Your task to perform on an android device: turn on bluetooth scan Image 0: 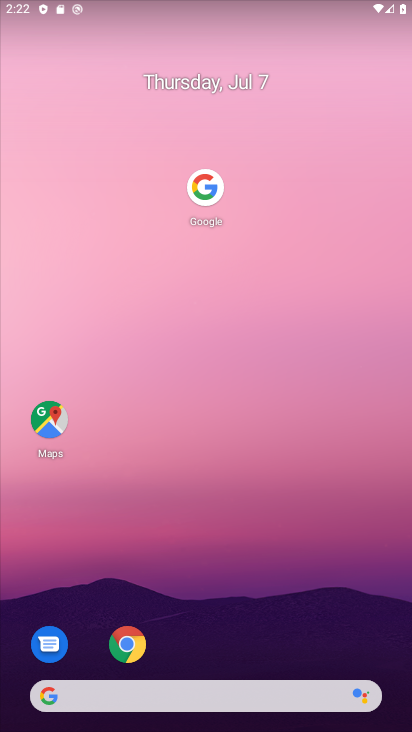
Step 0: drag from (146, 701) to (249, 152)
Your task to perform on an android device: turn on bluetooth scan Image 1: 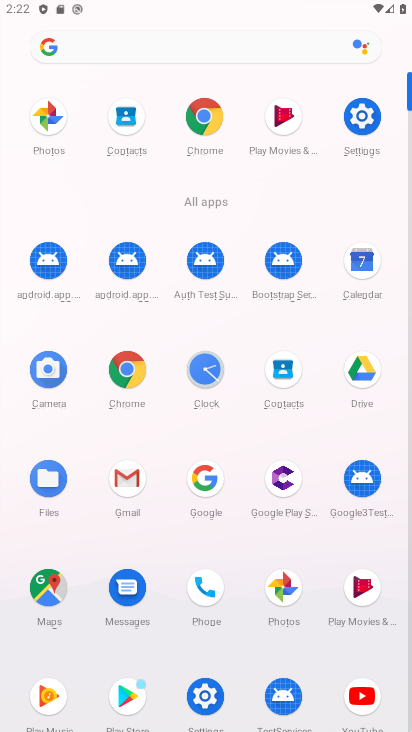
Step 1: click (356, 113)
Your task to perform on an android device: turn on bluetooth scan Image 2: 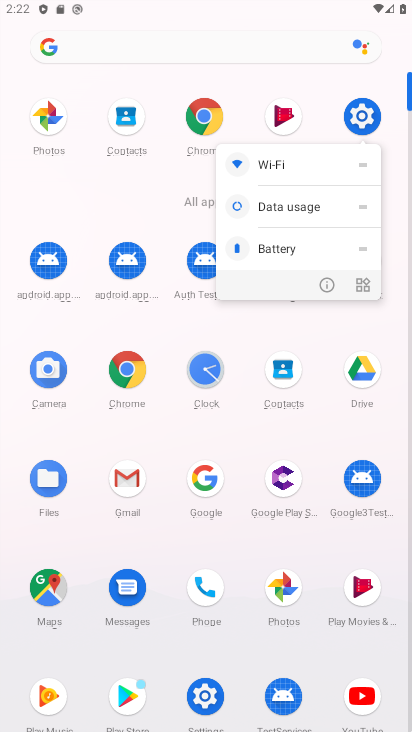
Step 2: click (360, 112)
Your task to perform on an android device: turn on bluetooth scan Image 3: 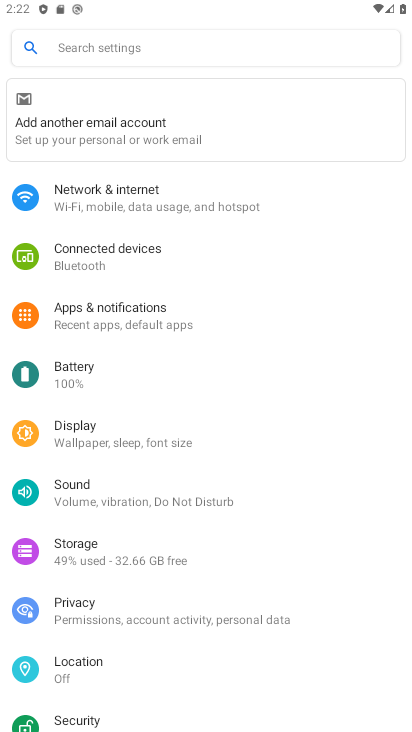
Step 3: click (101, 576)
Your task to perform on an android device: turn on bluetooth scan Image 4: 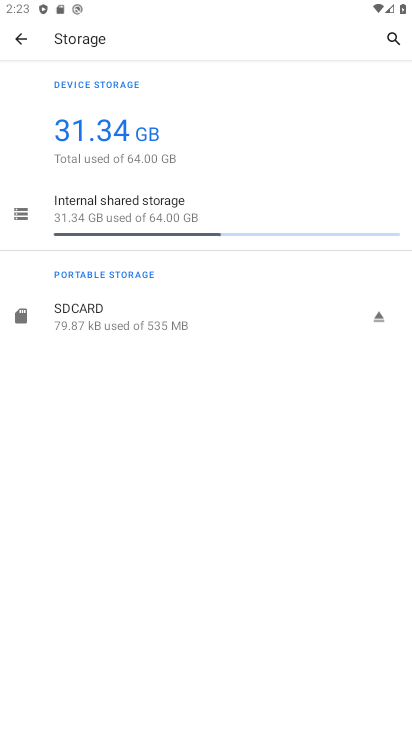
Step 4: click (18, 38)
Your task to perform on an android device: turn on bluetooth scan Image 5: 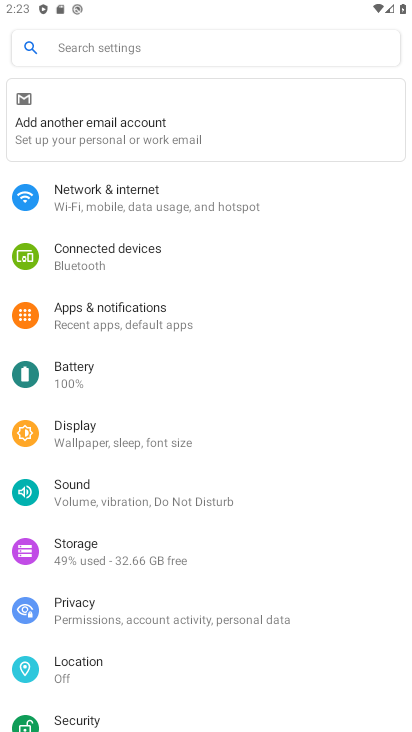
Step 5: click (78, 676)
Your task to perform on an android device: turn on bluetooth scan Image 6: 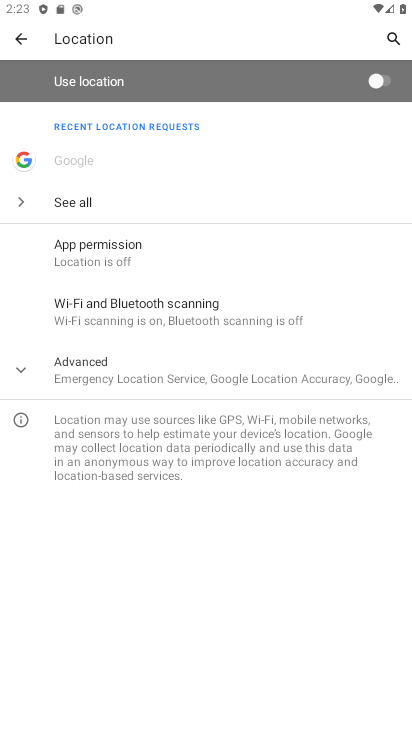
Step 6: click (140, 307)
Your task to perform on an android device: turn on bluetooth scan Image 7: 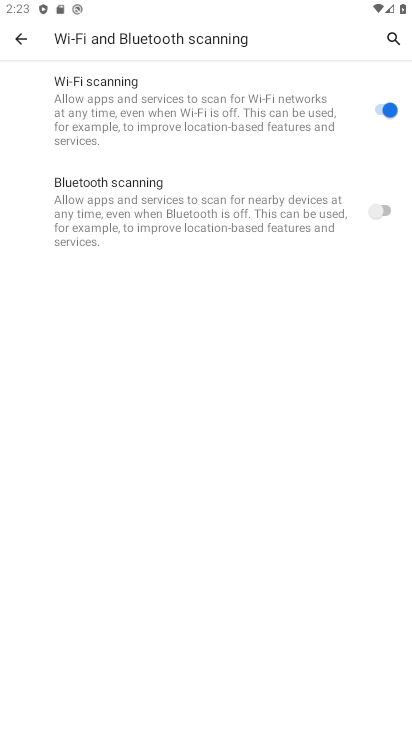
Step 7: click (383, 204)
Your task to perform on an android device: turn on bluetooth scan Image 8: 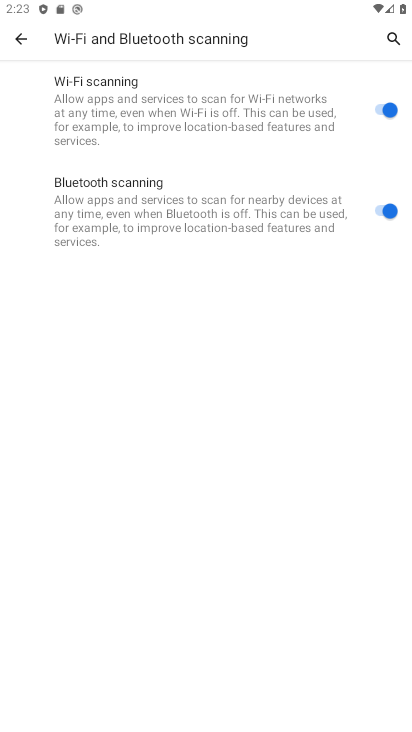
Step 8: task complete